Your task to perform on an android device: turn notification dots on Image 0: 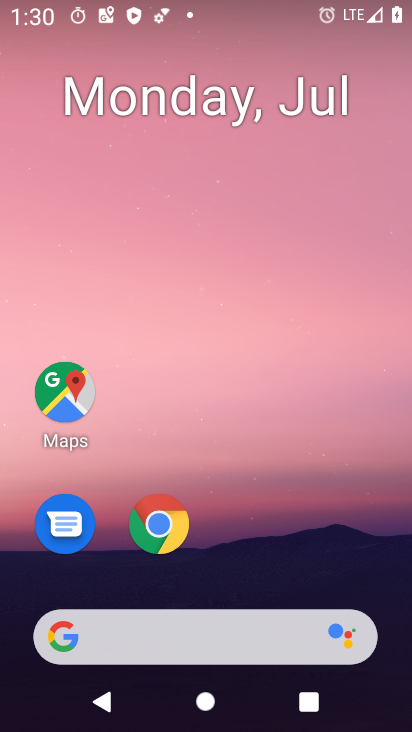
Step 0: press home button
Your task to perform on an android device: turn notification dots on Image 1: 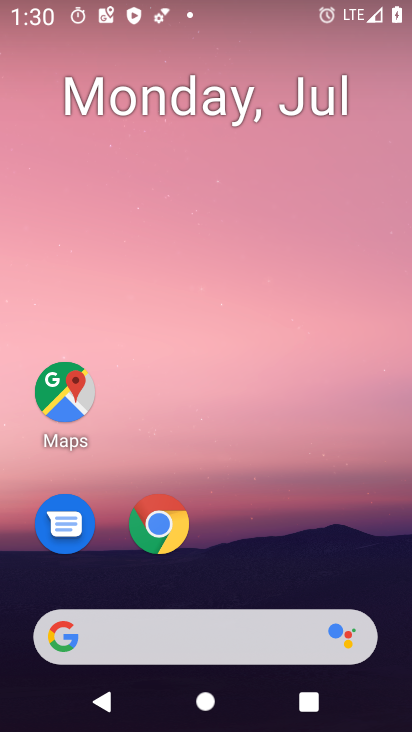
Step 1: press home button
Your task to perform on an android device: turn notification dots on Image 2: 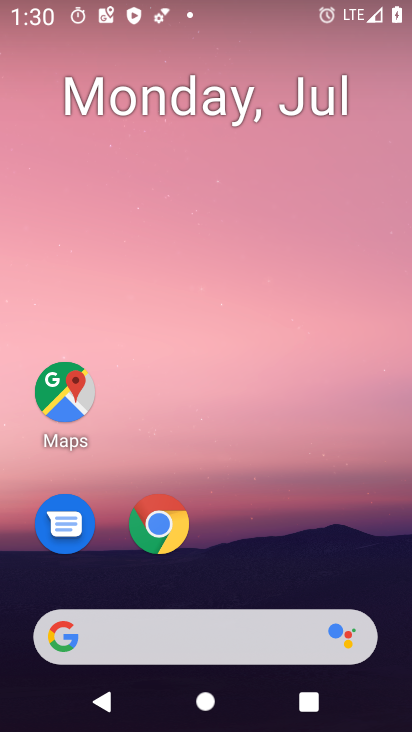
Step 2: drag from (272, 544) to (274, 82)
Your task to perform on an android device: turn notification dots on Image 3: 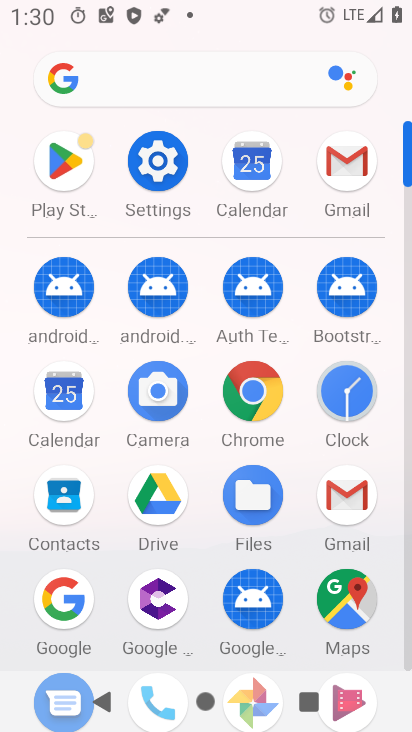
Step 3: click (151, 149)
Your task to perform on an android device: turn notification dots on Image 4: 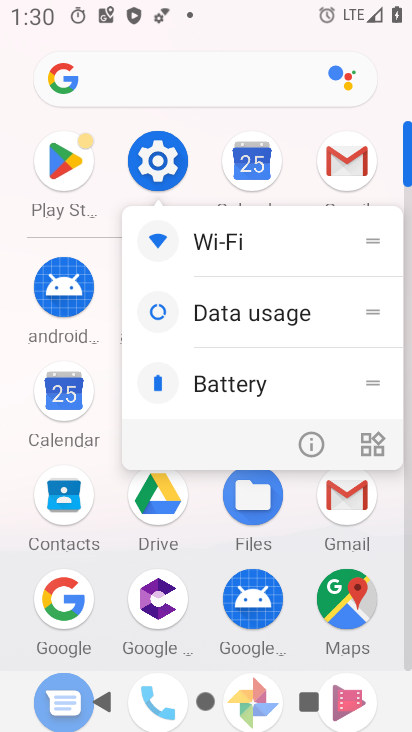
Step 4: click (140, 159)
Your task to perform on an android device: turn notification dots on Image 5: 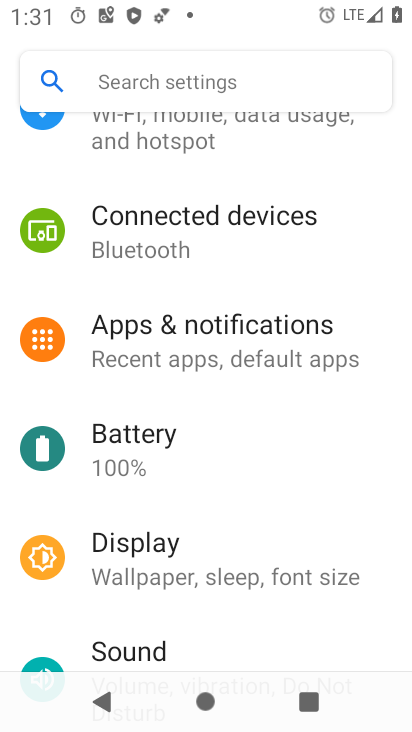
Step 5: click (167, 347)
Your task to perform on an android device: turn notification dots on Image 6: 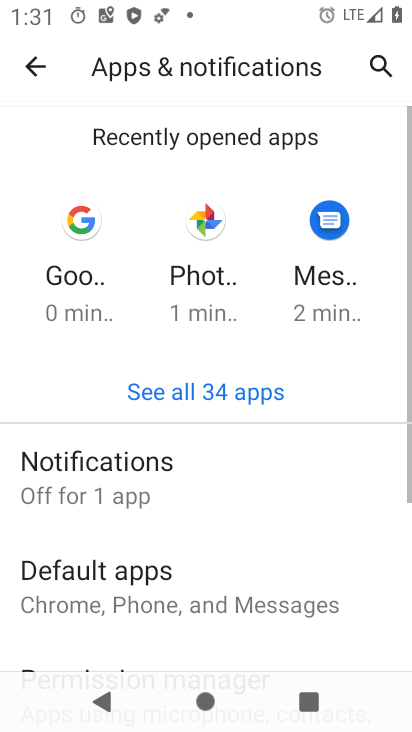
Step 6: click (147, 493)
Your task to perform on an android device: turn notification dots on Image 7: 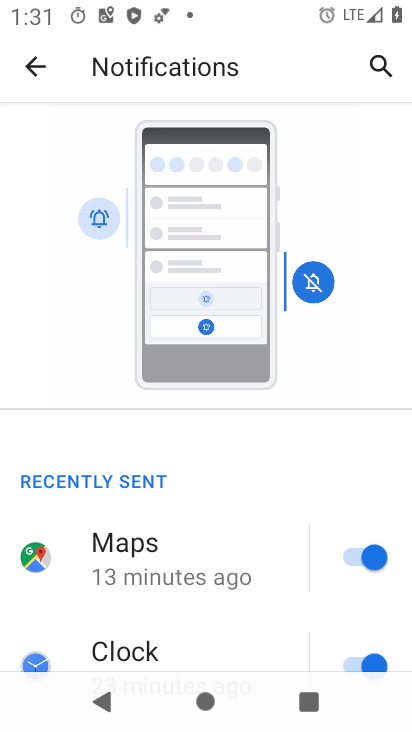
Step 7: drag from (249, 485) to (274, 81)
Your task to perform on an android device: turn notification dots on Image 8: 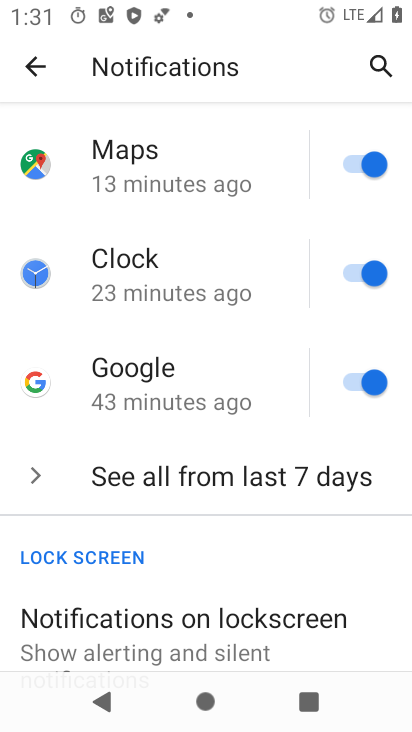
Step 8: drag from (195, 517) to (299, 141)
Your task to perform on an android device: turn notification dots on Image 9: 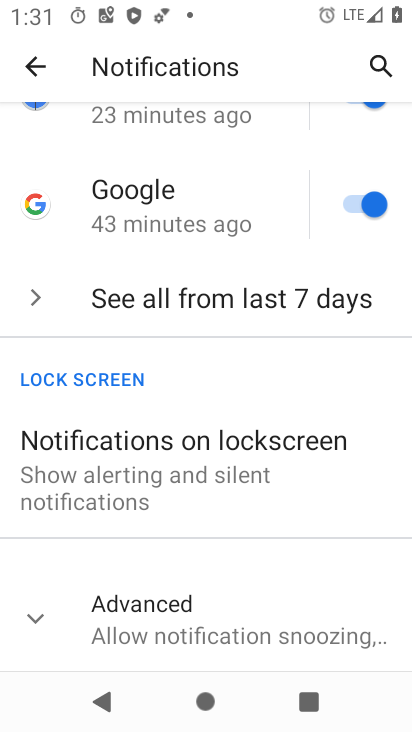
Step 9: drag from (154, 573) to (228, 337)
Your task to perform on an android device: turn notification dots on Image 10: 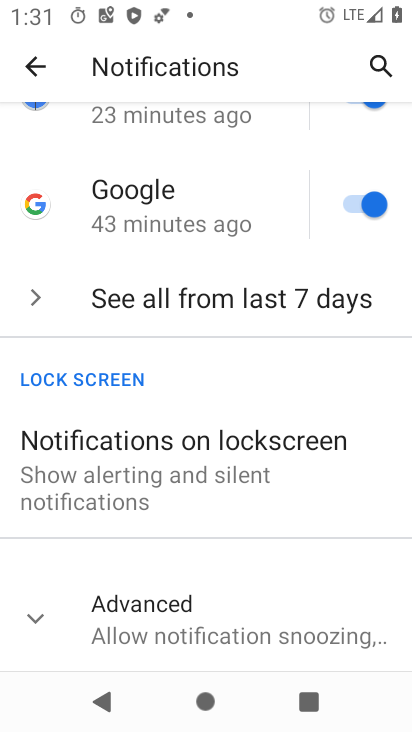
Step 10: click (33, 615)
Your task to perform on an android device: turn notification dots on Image 11: 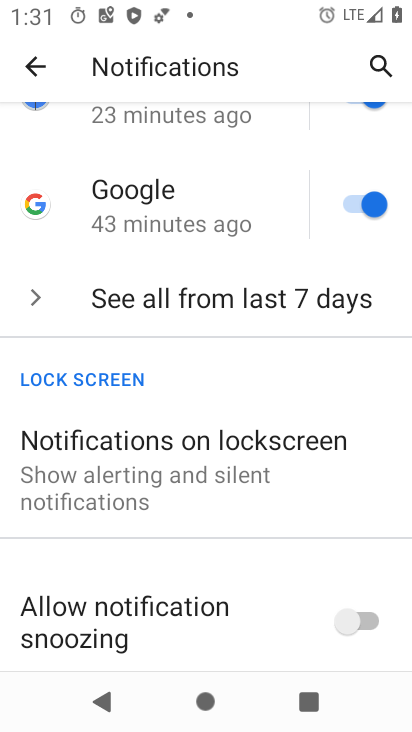
Step 11: task complete